Your task to perform on an android device: open app "Mercado Libre" (install if not already installed) and go to login screen Image 0: 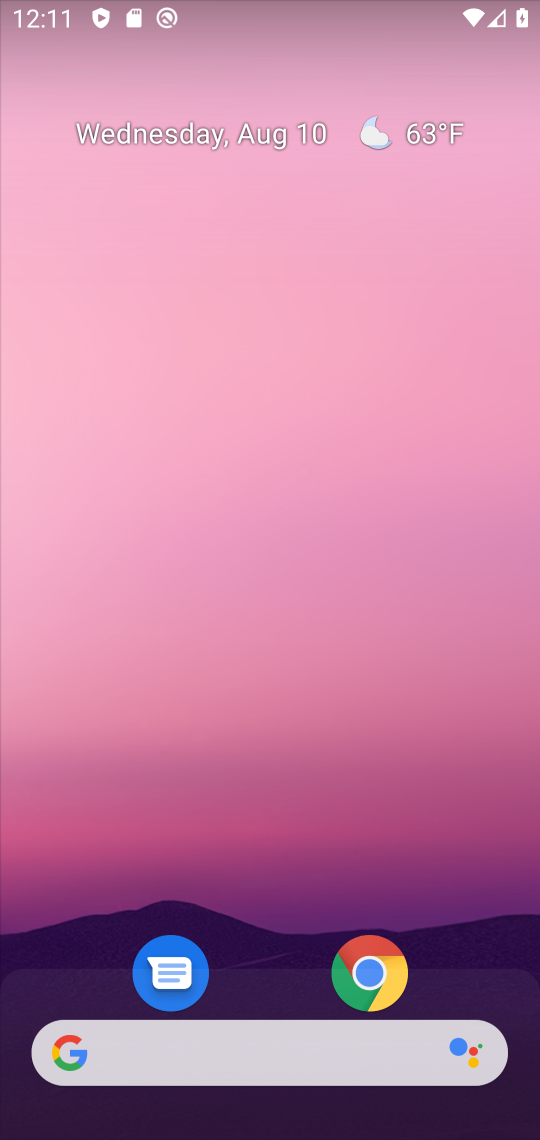
Step 0: drag from (307, 738) to (344, 515)
Your task to perform on an android device: open app "Mercado Libre" (install if not already installed) and go to login screen Image 1: 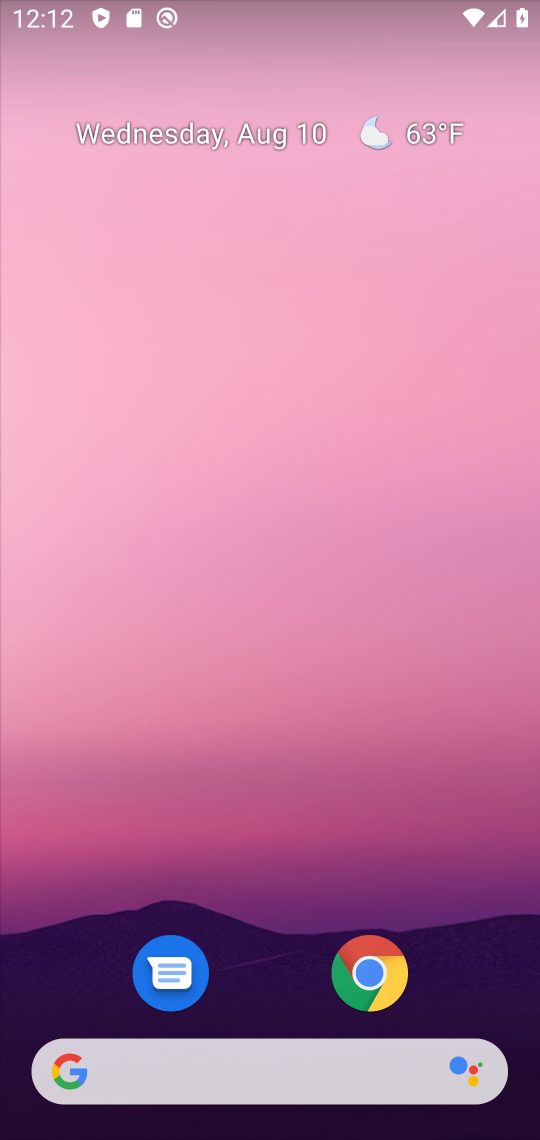
Step 1: drag from (256, 1004) to (355, 162)
Your task to perform on an android device: open app "Mercado Libre" (install if not already installed) and go to login screen Image 2: 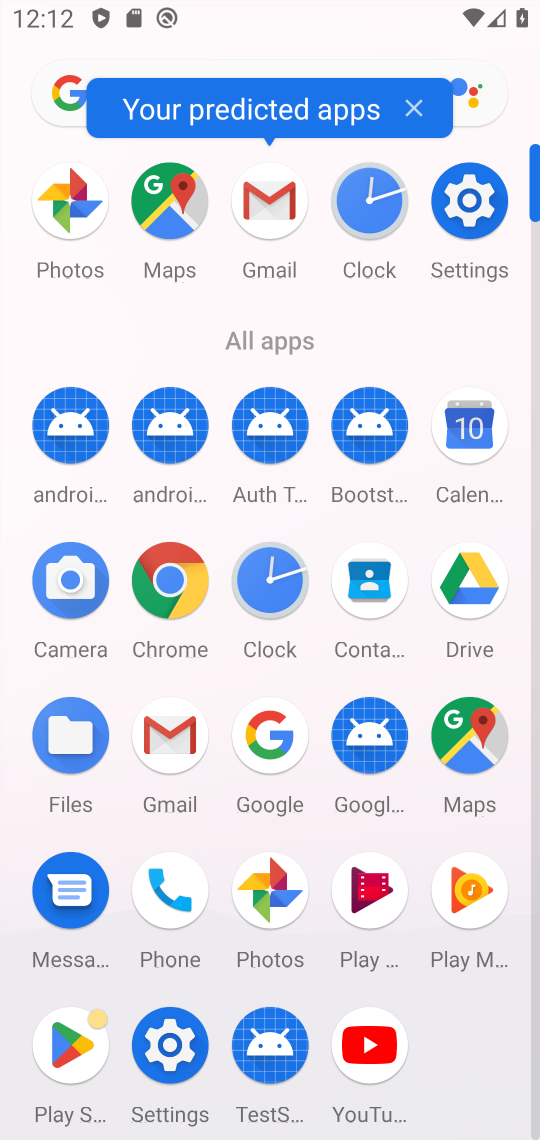
Step 2: click (61, 1032)
Your task to perform on an android device: open app "Mercado Libre" (install if not already installed) and go to login screen Image 3: 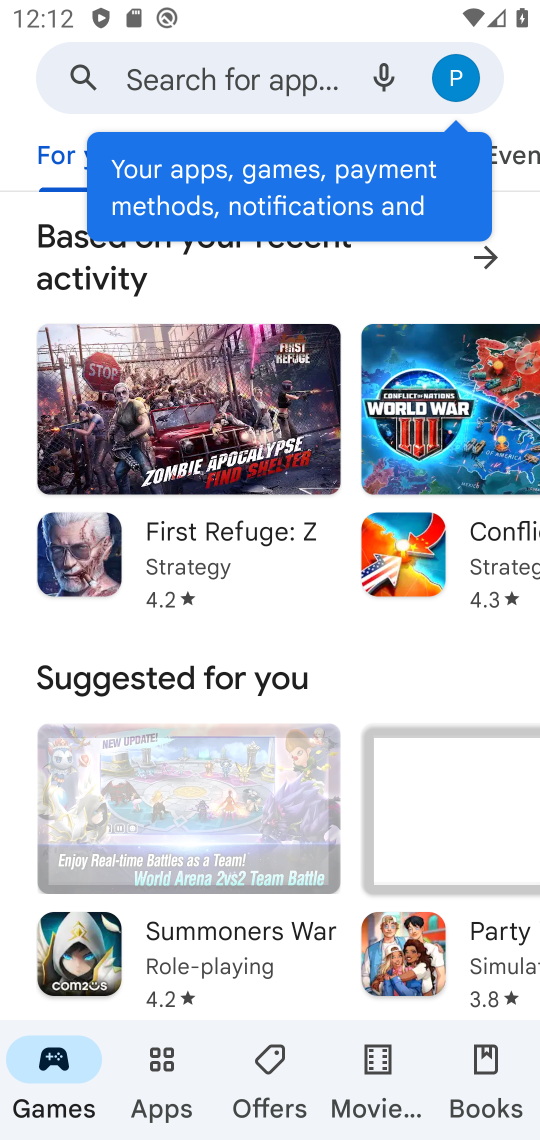
Step 3: click (210, 54)
Your task to perform on an android device: open app "Mercado Libre" (install if not already installed) and go to login screen Image 4: 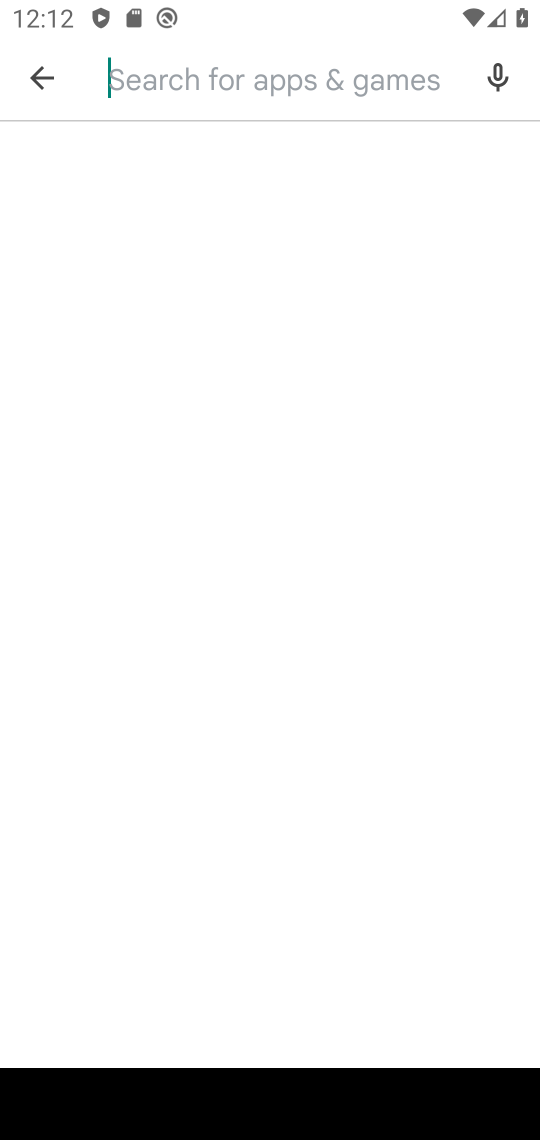
Step 4: type "mercado libre"
Your task to perform on an android device: open app "Mercado Libre" (install if not already installed) and go to login screen Image 5: 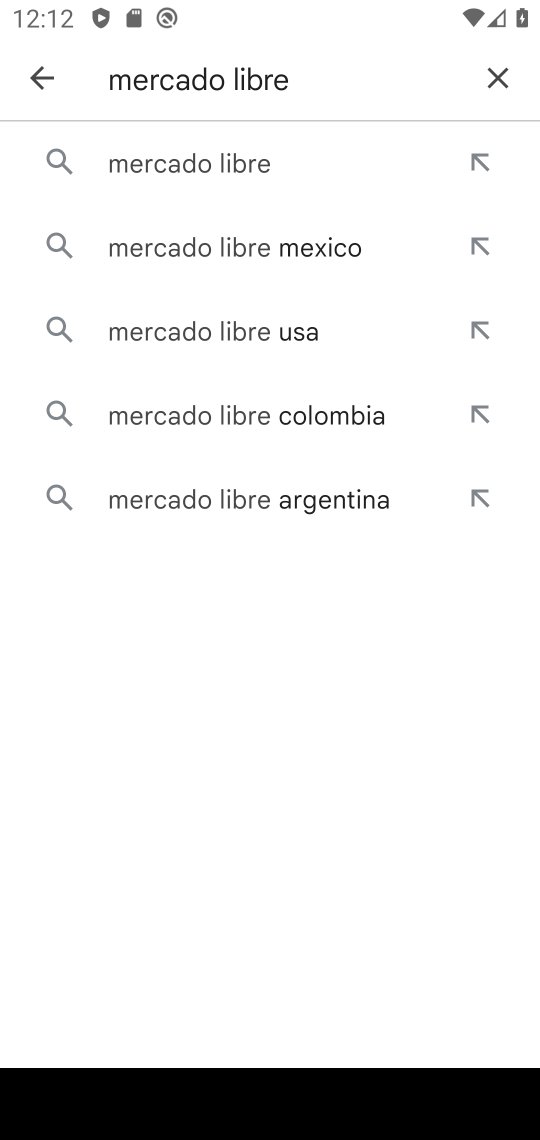
Step 5: click (177, 156)
Your task to perform on an android device: open app "Mercado Libre" (install if not already installed) and go to login screen Image 6: 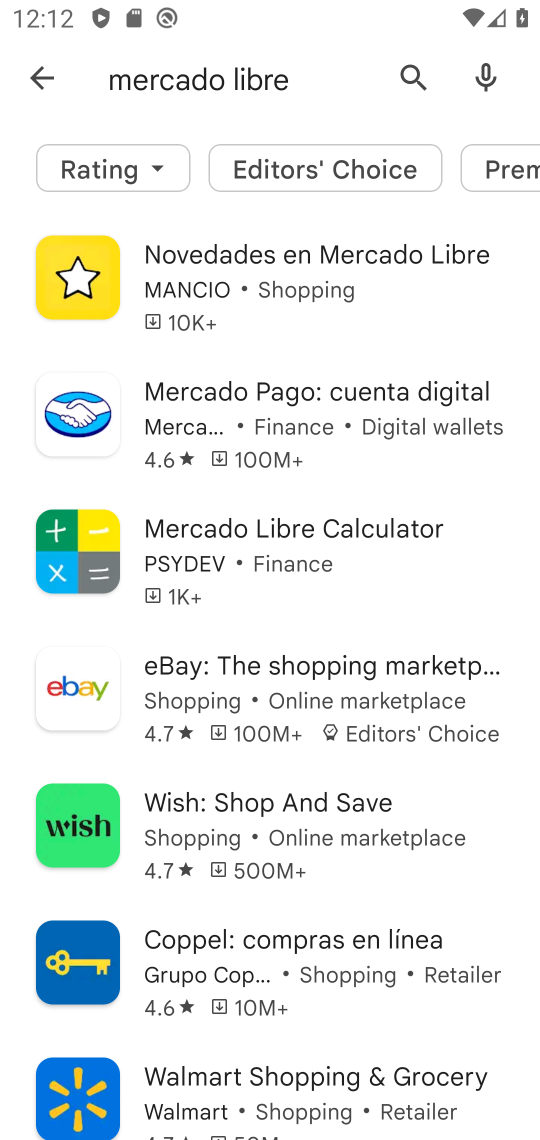
Step 6: task complete